Your task to perform on an android device: Go to wifi settings Image 0: 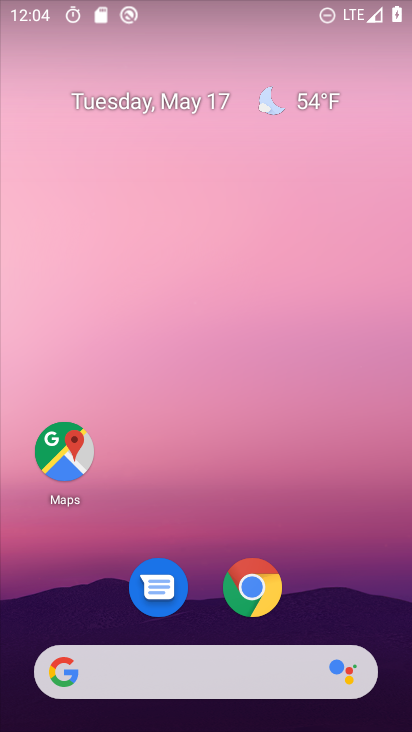
Step 0: drag from (200, 630) to (259, 231)
Your task to perform on an android device: Go to wifi settings Image 1: 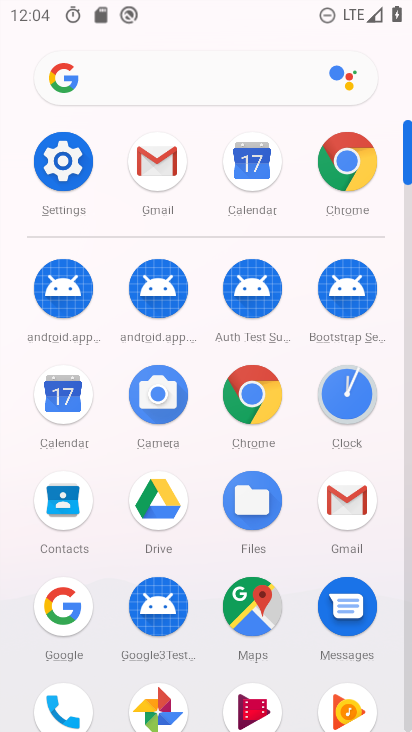
Step 1: click (34, 152)
Your task to perform on an android device: Go to wifi settings Image 2: 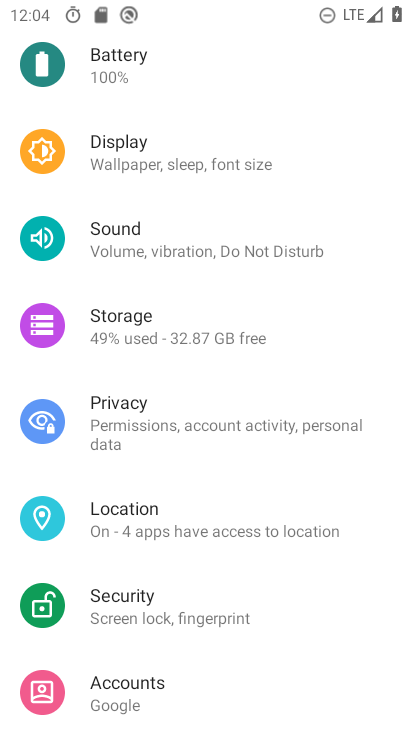
Step 2: drag from (180, 111) to (287, 670)
Your task to perform on an android device: Go to wifi settings Image 3: 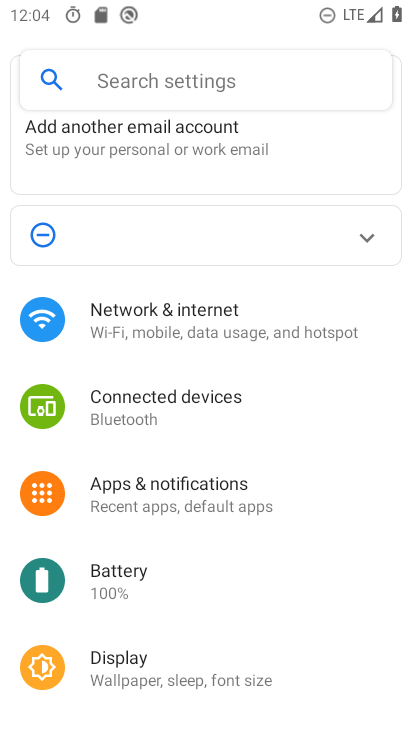
Step 3: click (204, 308)
Your task to perform on an android device: Go to wifi settings Image 4: 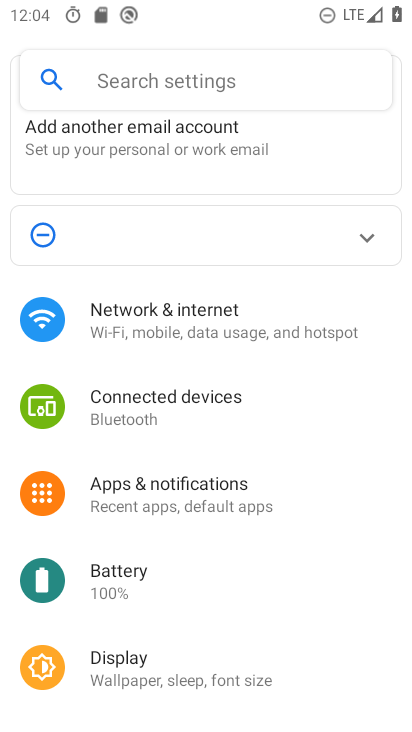
Step 4: click (204, 308)
Your task to perform on an android device: Go to wifi settings Image 5: 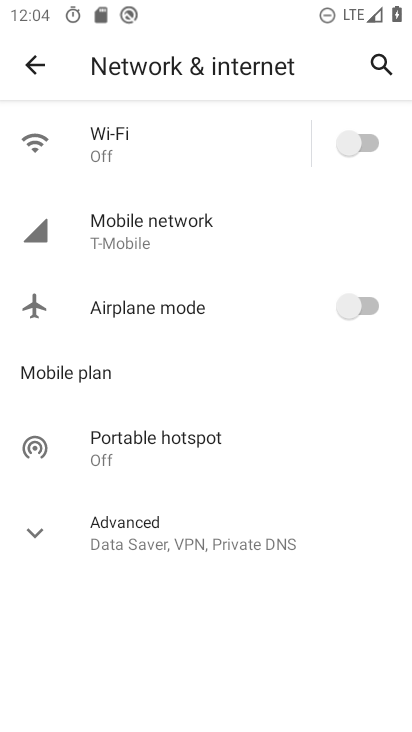
Step 5: click (245, 154)
Your task to perform on an android device: Go to wifi settings Image 6: 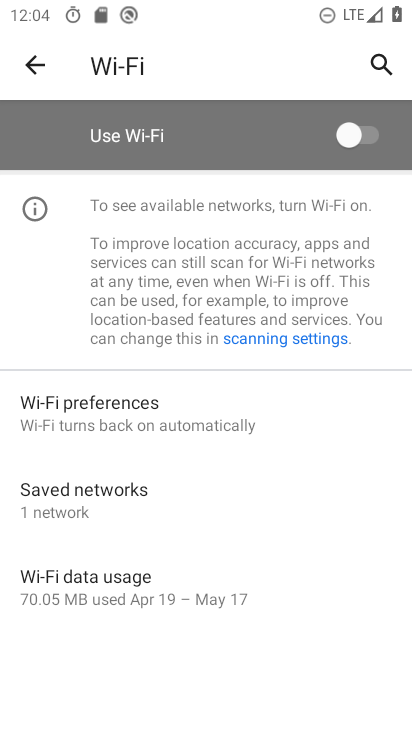
Step 6: task complete